Your task to perform on an android device: change the clock display to digital Image 0: 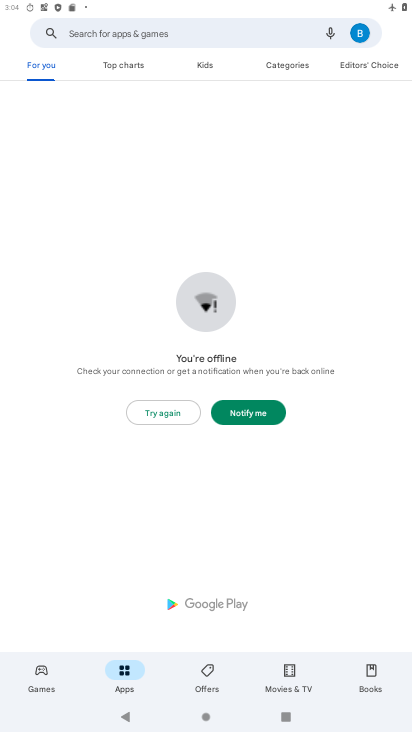
Step 0: press home button
Your task to perform on an android device: change the clock display to digital Image 1: 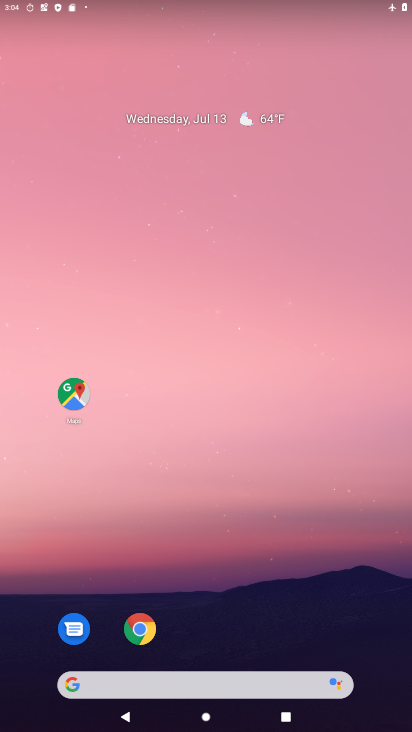
Step 1: drag from (201, 667) to (332, 7)
Your task to perform on an android device: change the clock display to digital Image 2: 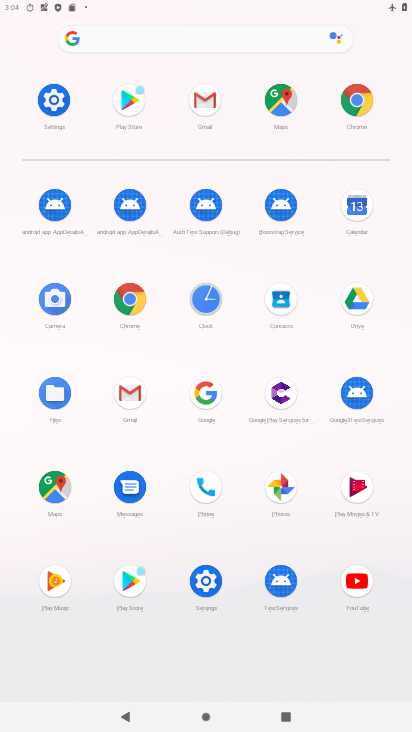
Step 2: click (206, 306)
Your task to perform on an android device: change the clock display to digital Image 3: 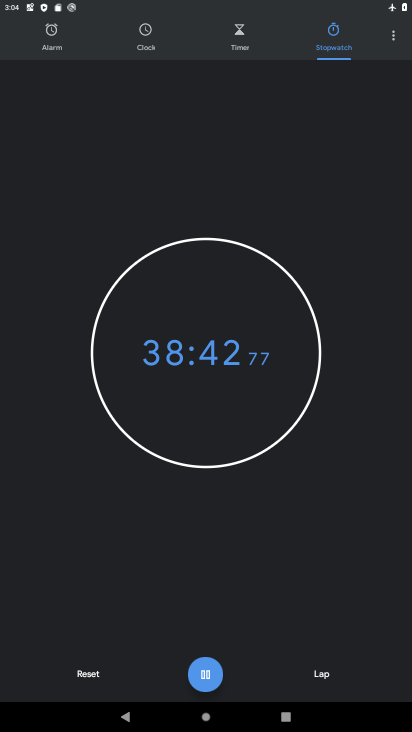
Step 3: click (393, 44)
Your task to perform on an android device: change the clock display to digital Image 4: 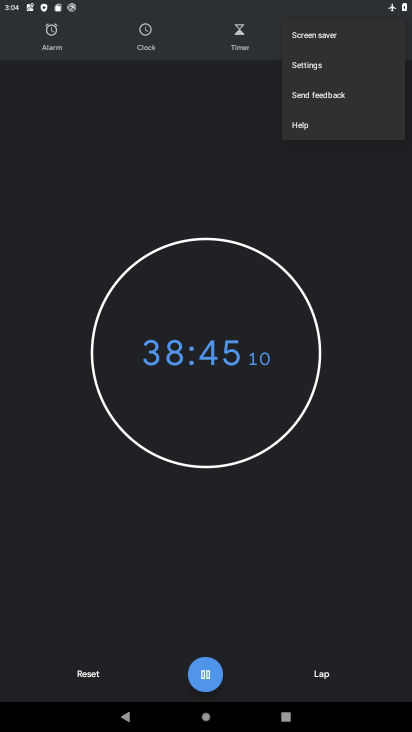
Step 4: click (316, 69)
Your task to perform on an android device: change the clock display to digital Image 5: 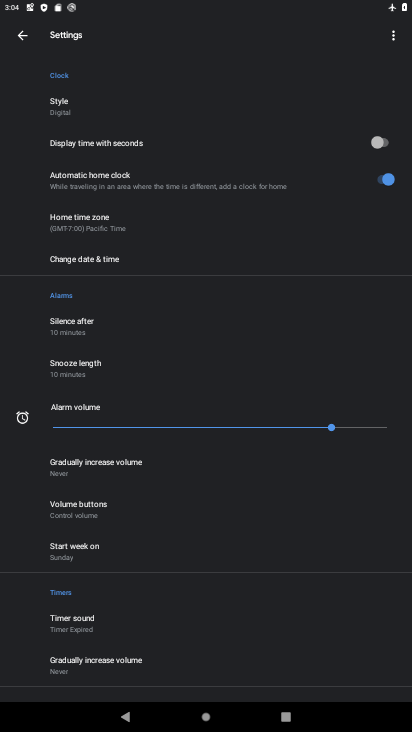
Step 5: click (87, 100)
Your task to perform on an android device: change the clock display to digital Image 6: 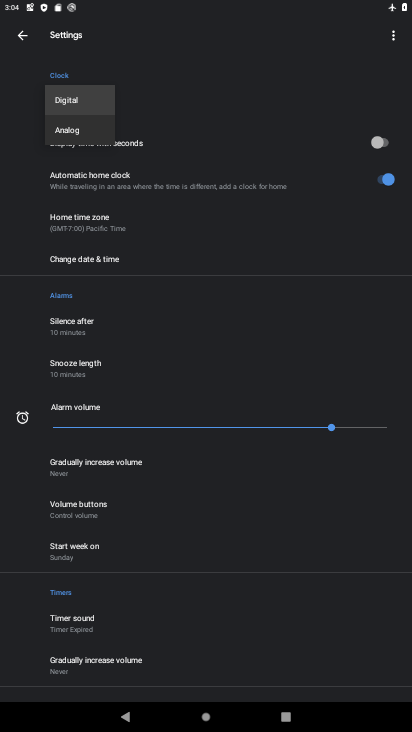
Step 6: click (87, 100)
Your task to perform on an android device: change the clock display to digital Image 7: 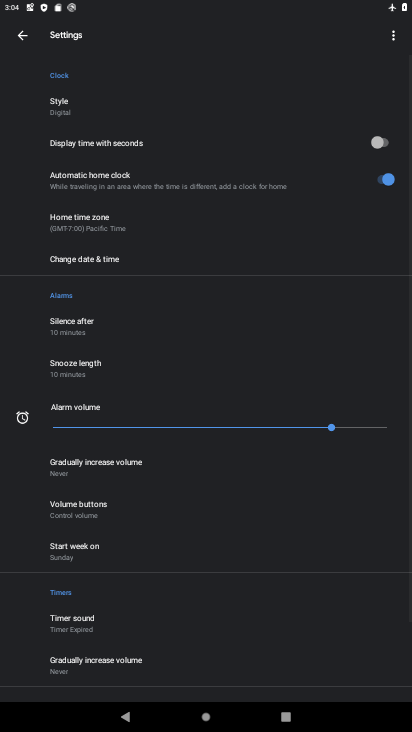
Step 7: task complete